Your task to perform on an android device: move an email to a new category in the gmail app Image 0: 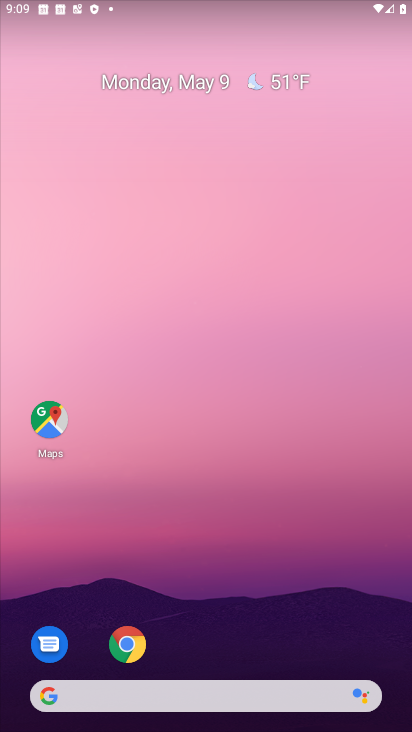
Step 0: drag from (241, 677) to (318, 12)
Your task to perform on an android device: move an email to a new category in the gmail app Image 1: 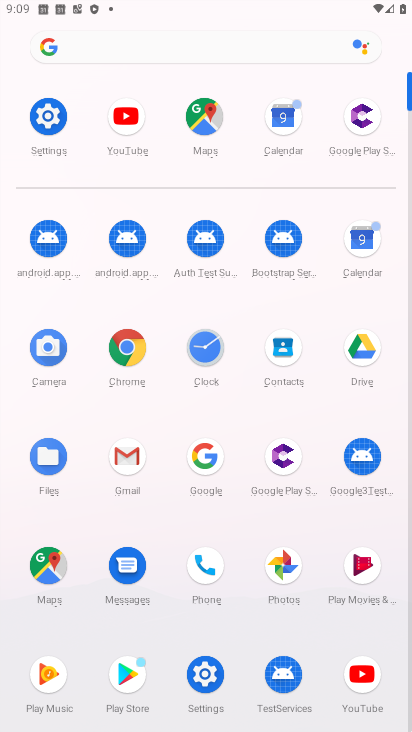
Step 1: click (122, 462)
Your task to perform on an android device: move an email to a new category in the gmail app Image 2: 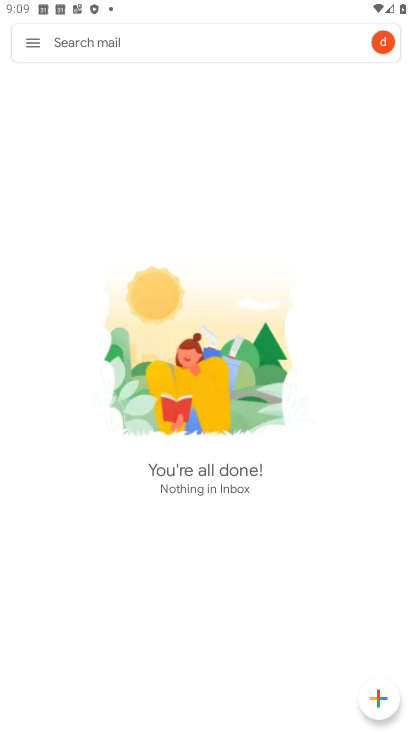
Step 2: click (25, 54)
Your task to perform on an android device: move an email to a new category in the gmail app Image 3: 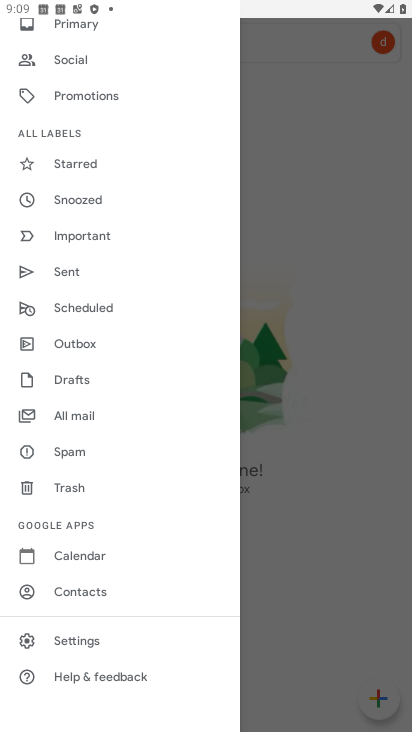
Step 3: click (85, 636)
Your task to perform on an android device: move an email to a new category in the gmail app Image 4: 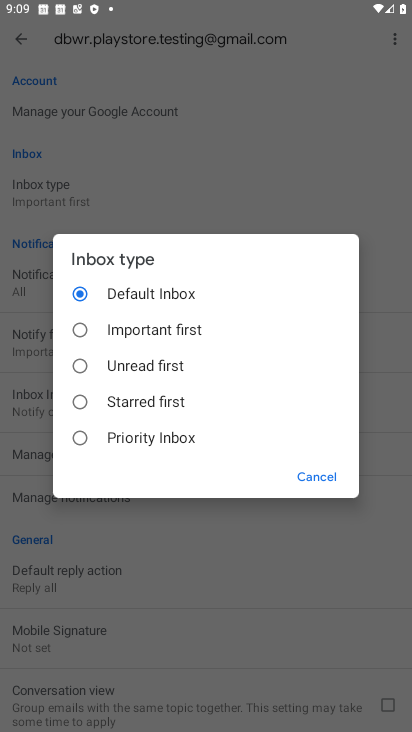
Step 4: click (328, 472)
Your task to perform on an android device: move an email to a new category in the gmail app Image 5: 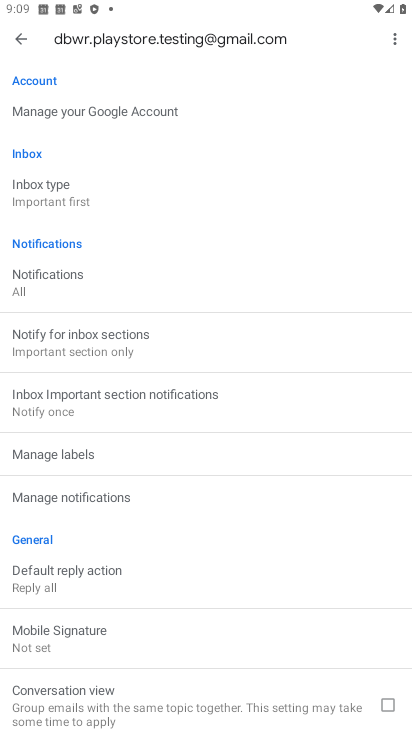
Step 5: click (27, 48)
Your task to perform on an android device: move an email to a new category in the gmail app Image 6: 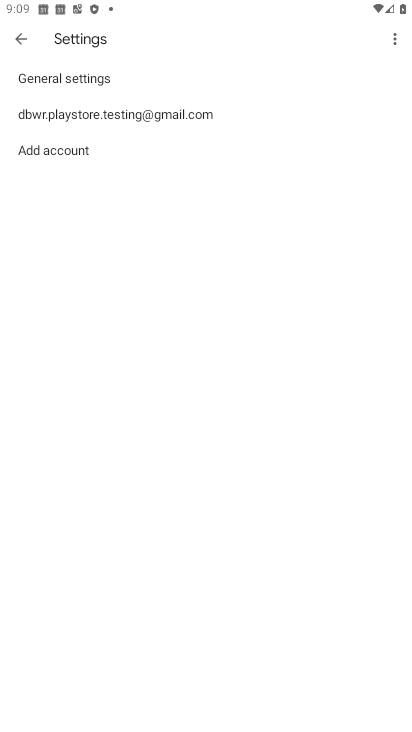
Step 6: click (28, 47)
Your task to perform on an android device: move an email to a new category in the gmail app Image 7: 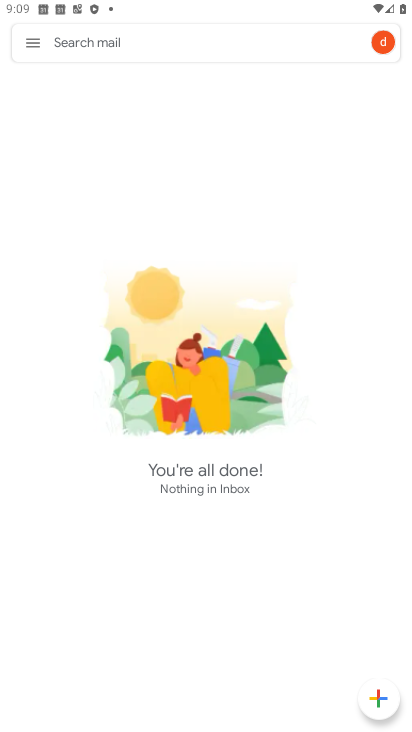
Step 7: click (28, 47)
Your task to perform on an android device: move an email to a new category in the gmail app Image 8: 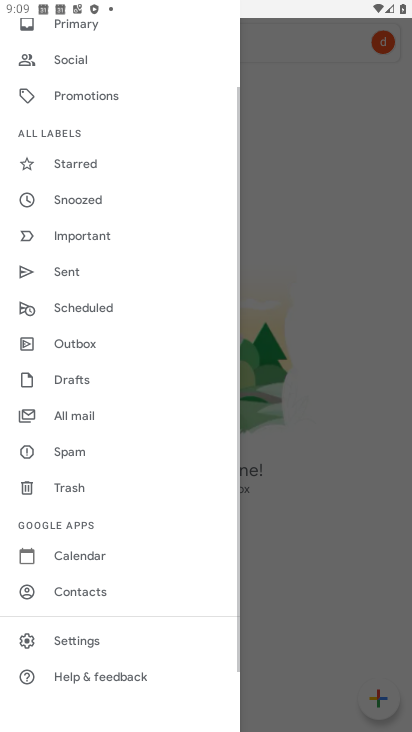
Step 8: drag from (90, 116) to (46, 695)
Your task to perform on an android device: move an email to a new category in the gmail app Image 9: 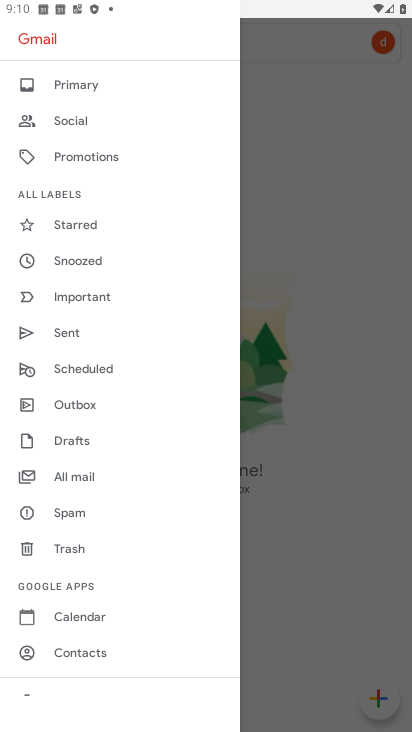
Step 9: drag from (184, 648) to (112, 207)
Your task to perform on an android device: move an email to a new category in the gmail app Image 10: 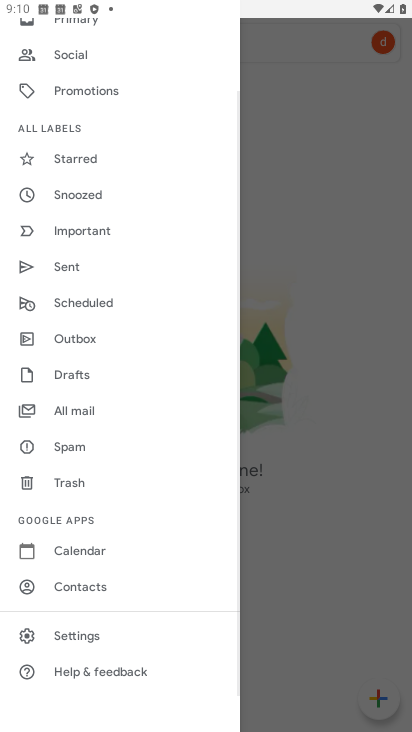
Step 10: click (73, 646)
Your task to perform on an android device: move an email to a new category in the gmail app Image 11: 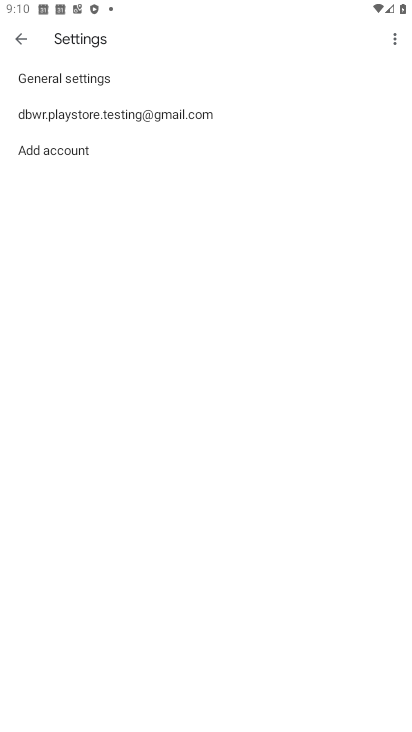
Step 11: click (15, 37)
Your task to perform on an android device: move an email to a new category in the gmail app Image 12: 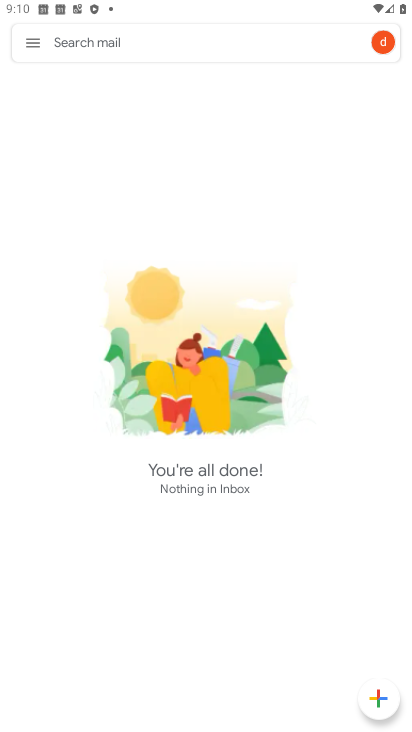
Step 12: click (23, 40)
Your task to perform on an android device: move an email to a new category in the gmail app Image 13: 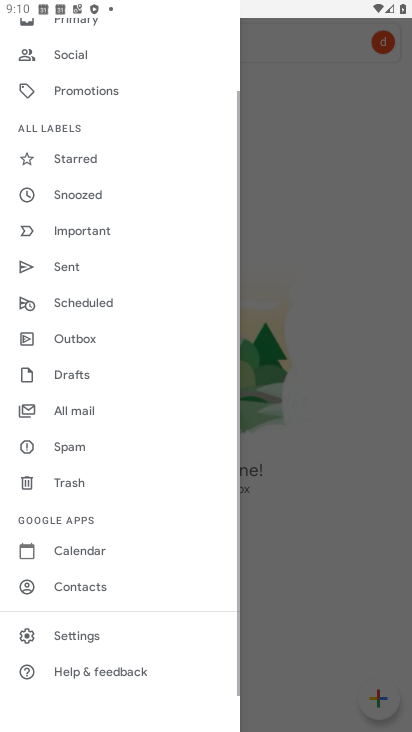
Step 13: drag from (74, 142) to (82, 598)
Your task to perform on an android device: move an email to a new category in the gmail app Image 14: 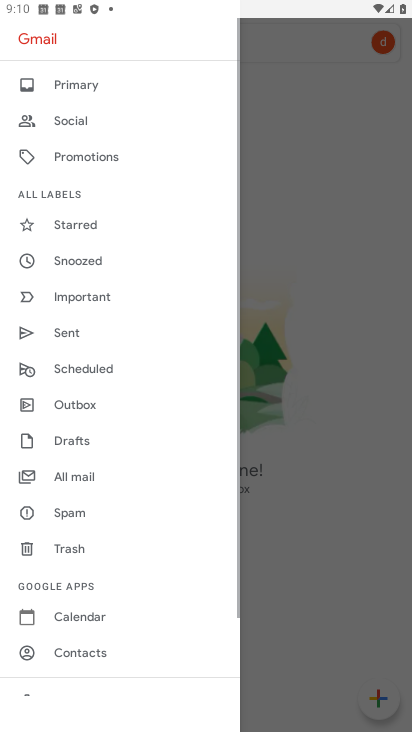
Step 14: click (62, 91)
Your task to perform on an android device: move an email to a new category in the gmail app Image 15: 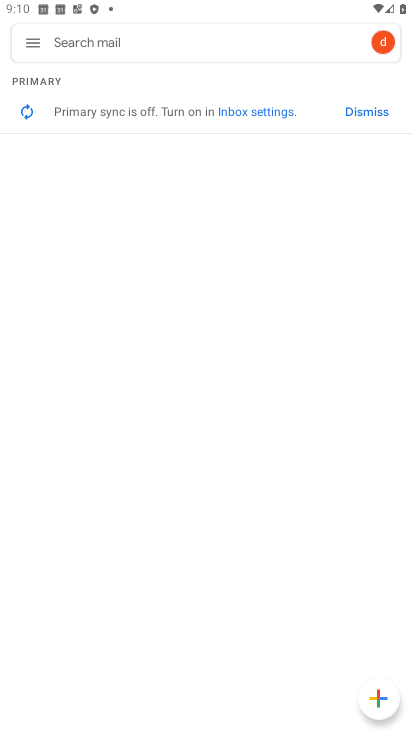
Step 15: drag from (141, 143) to (158, 610)
Your task to perform on an android device: move an email to a new category in the gmail app Image 16: 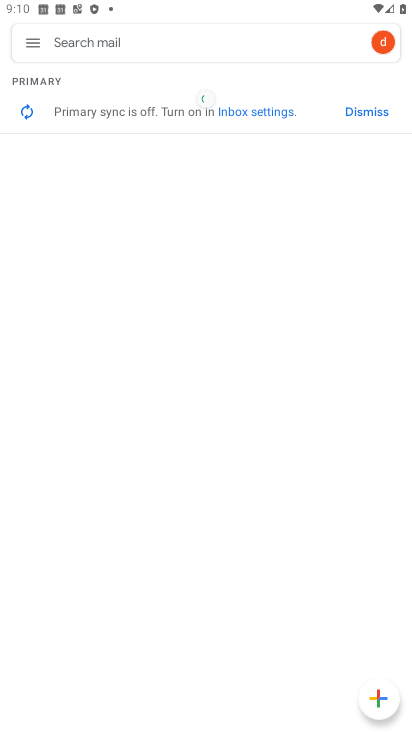
Step 16: click (352, 110)
Your task to perform on an android device: move an email to a new category in the gmail app Image 17: 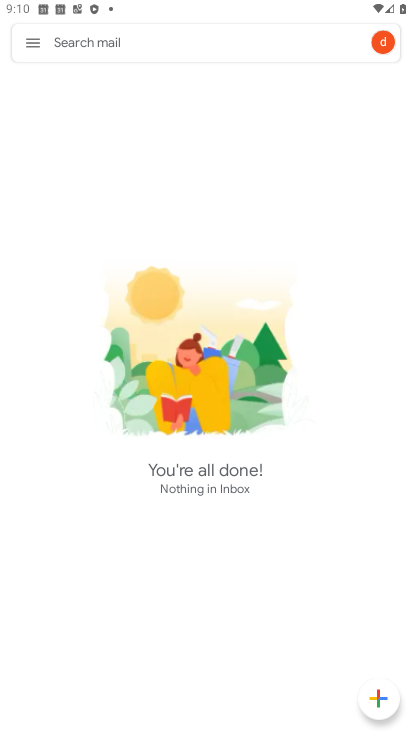
Step 17: task complete